Your task to perform on an android device: Do I have any events tomorrow? Image 0: 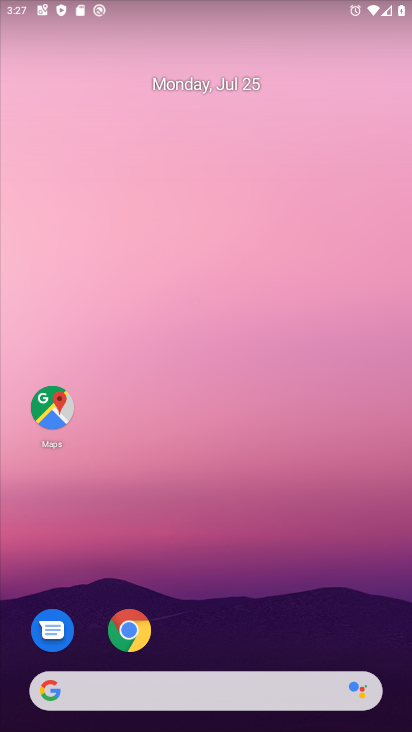
Step 0: drag from (196, 675) to (154, 203)
Your task to perform on an android device: Do I have any events tomorrow? Image 1: 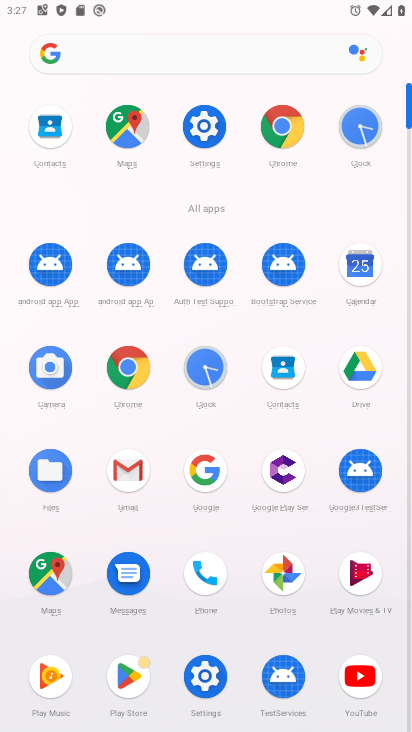
Step 1: click (367, 280)
Your task to perform on an android device: Do I have any events tomorrow? Image 2: 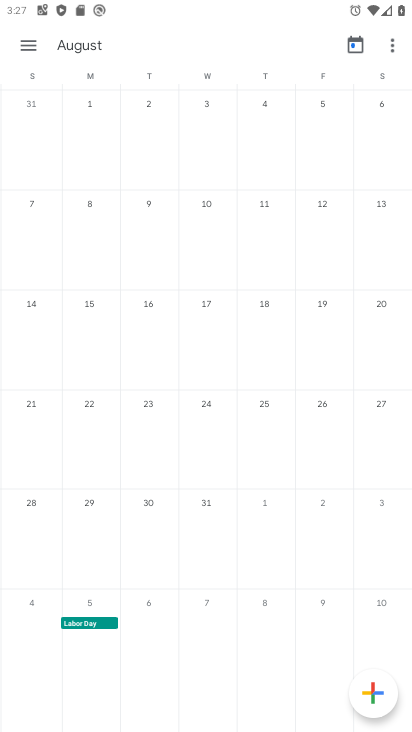
Step 2: drag from (76, 331) to (388, 350)
Your task to perform on an android device: Do I have any events tomorrow? Image 3: 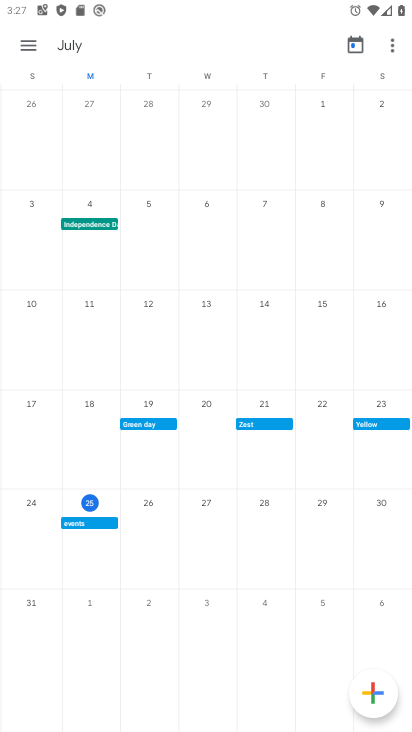
Step 3: click (19, 47)
Your task to perform on an android device: Do I have any events tomorrow? Image 4: 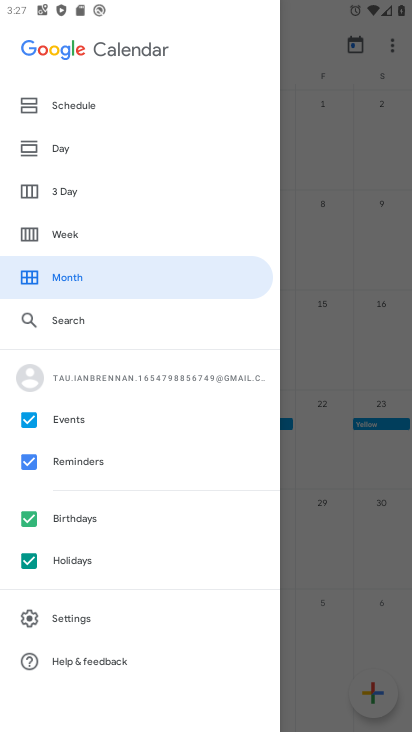
Step 4: click (50, 111)
Your task to perform on an android device: Do I have any events tomorrow? Image 5: 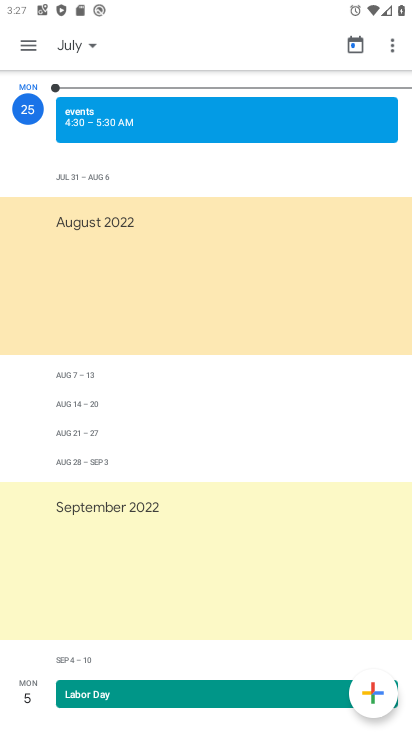
Step 5: task complete